Your task to perform on an android device: Go to display settings Image 0: 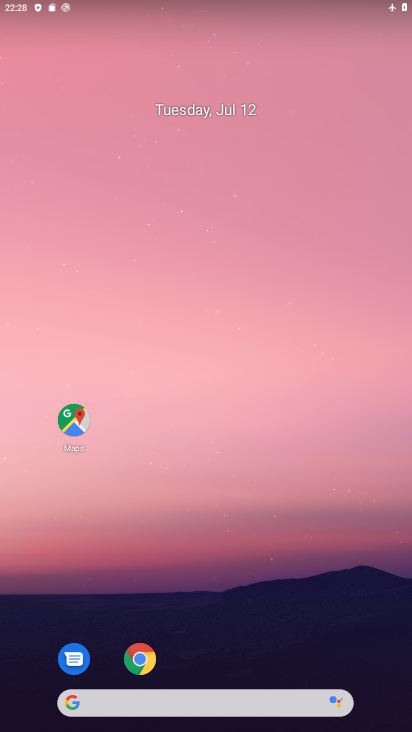
Step 0: drag from (246, 684) to (191, 193)
Your task to perform on an android device: Go to display settings Image 1: 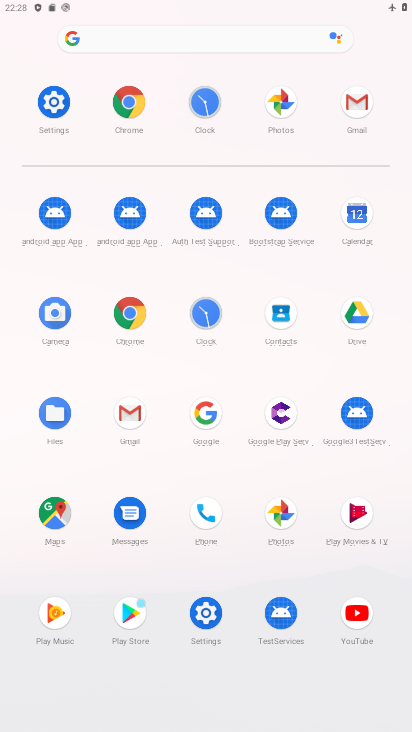
Step 1: click (39, 83)
Your task to perform on an android device: Go to display settings Image 2: 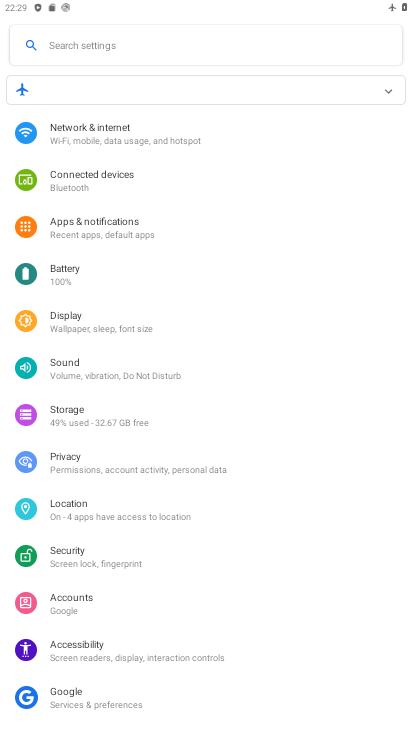
Step 2: click (87, 324)
Your task to perform on an android device: Go to display settings Image 3: 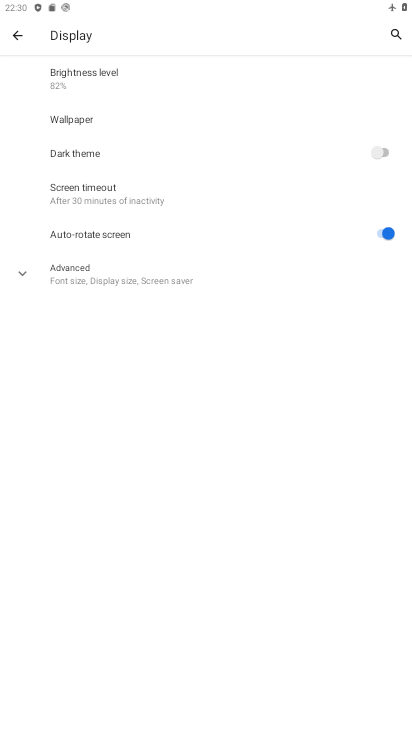
Step 3: task complete